Your task to perform on an android device: change your default location settings in chrome Image 0: 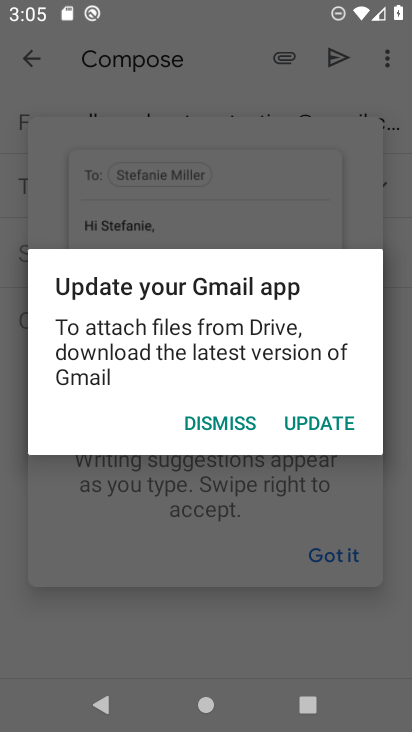
Step 0: press back button
Your task to perform on an android device: change your default location settings in chrome Image 1: 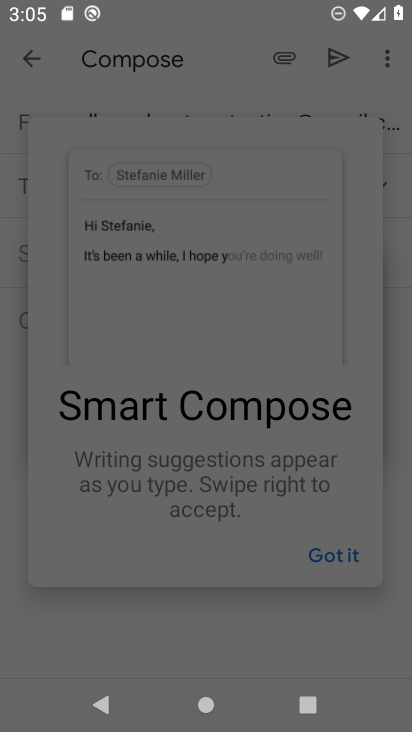
Step 1: click (211, 712)
Your task to perform on an android device: change your default location settings in chrome Image 2: 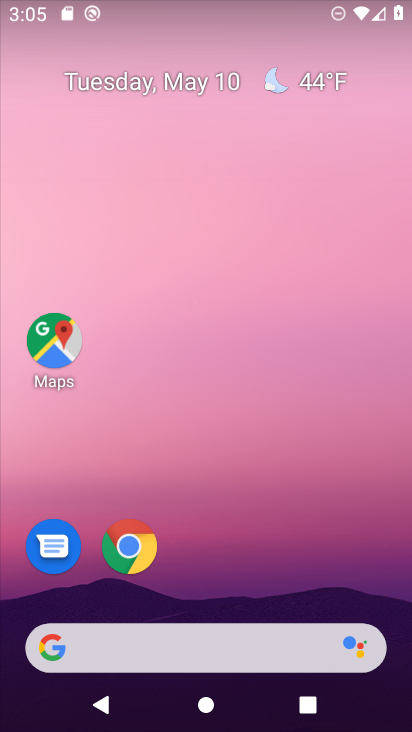
Step 2: drag from (195, 729) to (231, 98)
Your task to perform on an android device: change your default location settings in chrome Image 3: 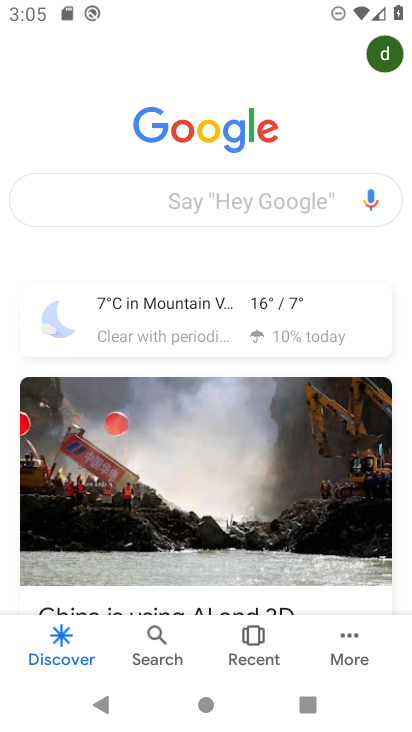
Step 3: press home button
Your task to perform on an android device: change your default location settings in chrome Image 4: 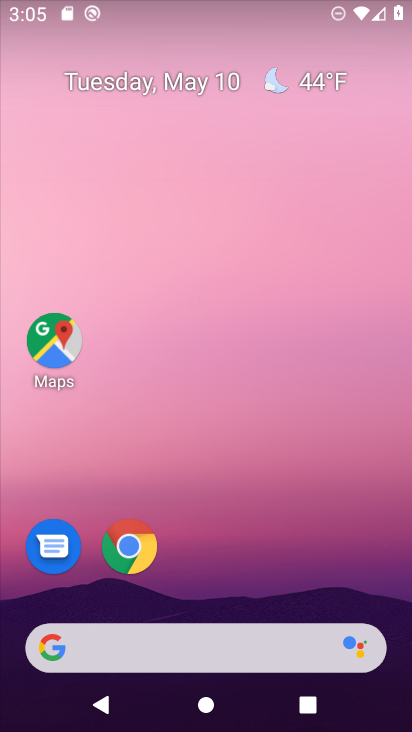
Step 4: drag from (230, 662) to (127, 35)
Your task to perform on an android device: change your default location settings in chrome Image 5: 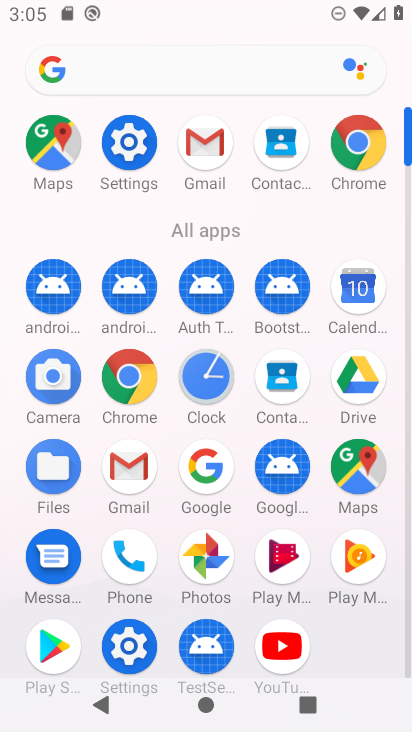
Step 5: click (113, 387)
Your task to perform on an android device: change your default location settings in chrome Image 6: 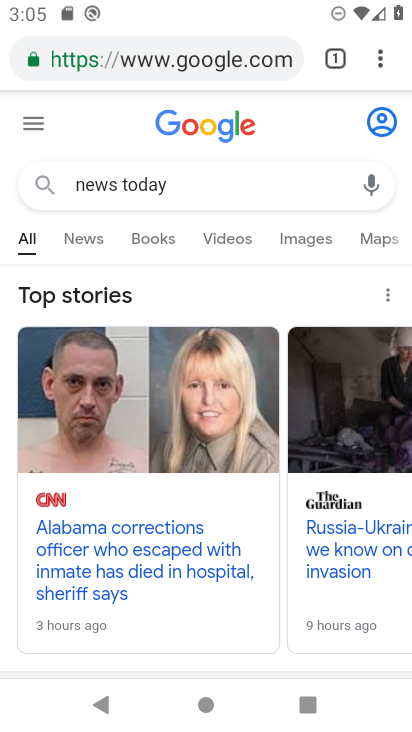
Step 6: drag from (381, 45) to (291, 372)
Your task to perform on an android device: change your default location settings in chrome Image 7: 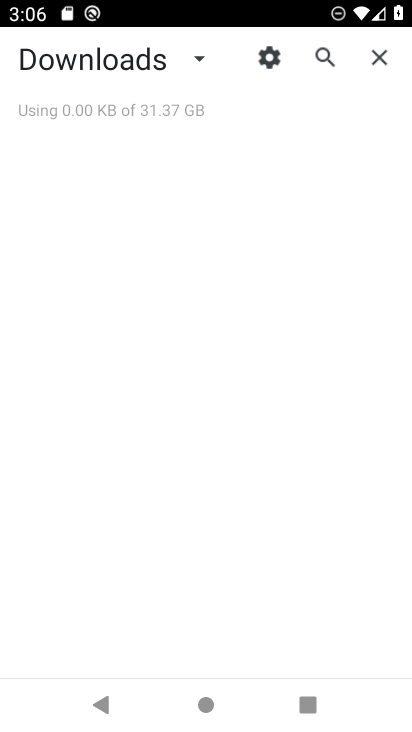
Step 7: press back button
Your task to perform on an android device: change your default location settings in chrome Image 8: 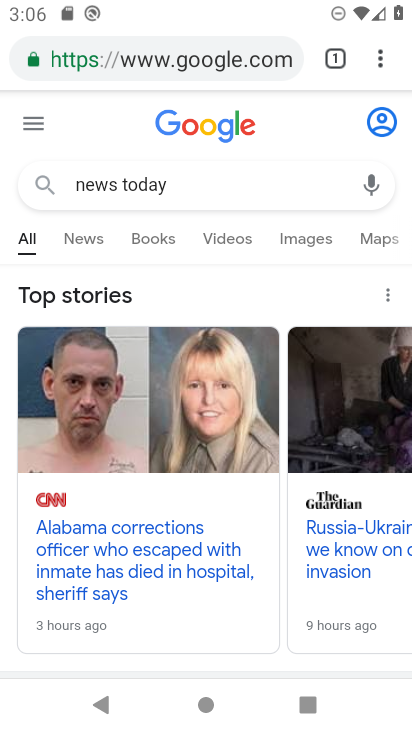
Step 8: click (379, 56)
Your task to perform on an android device: change your default location settings in chrome Image 9: 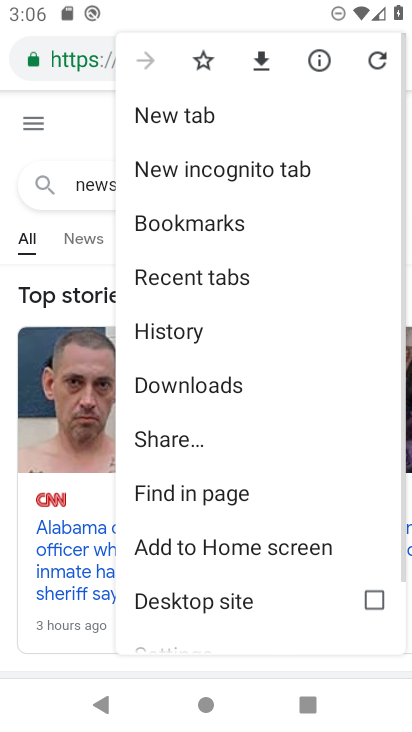
Step 9: drag from (325, 626) to (253, 236)
Your task to perform on an android device: change your default location settings in chrome Image 10: 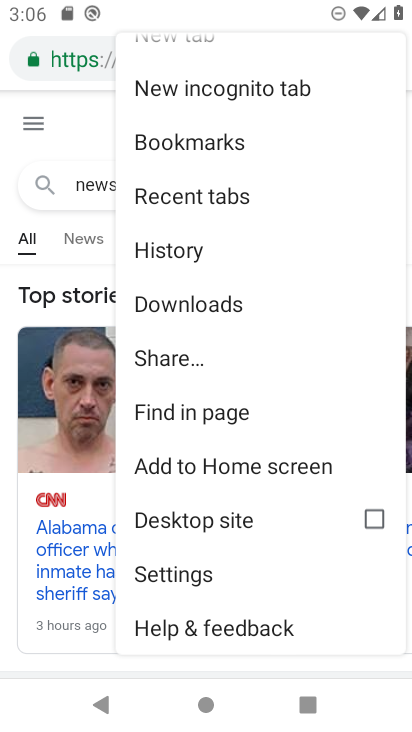
Step 10: click (173, 579)
Your task to perform on an android device: change your default location settings in chrome Image 11: 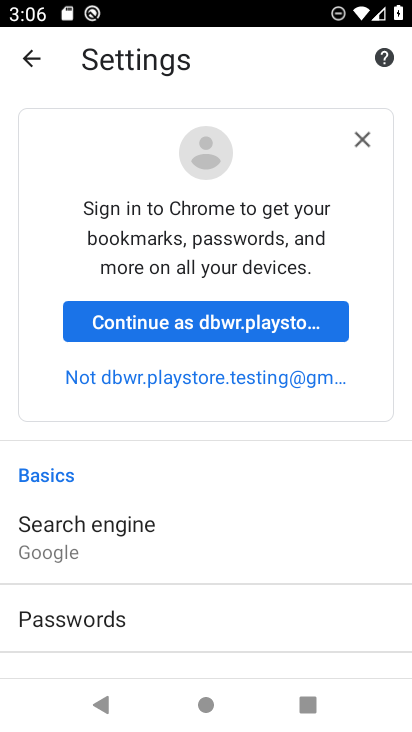
Step 11: drag from (237, 663) to (234, 330)
Your task to perform on an android device: change your default location settings in chrome Image 12: 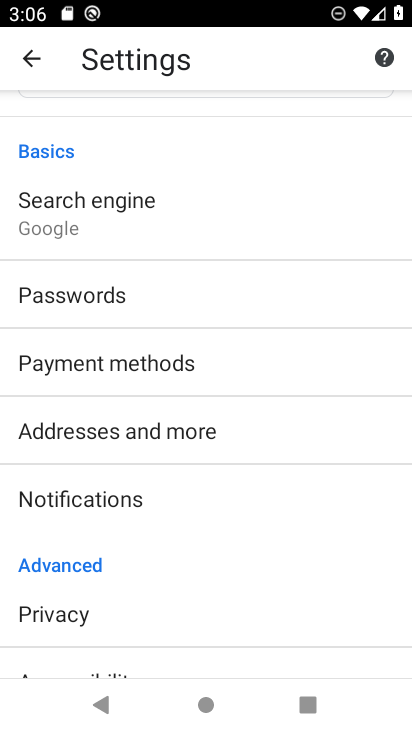
Step 12: drag from (206, 659) to (157, 206)
Your task to perform on an android device: change your default location settings in chrome Image 13: 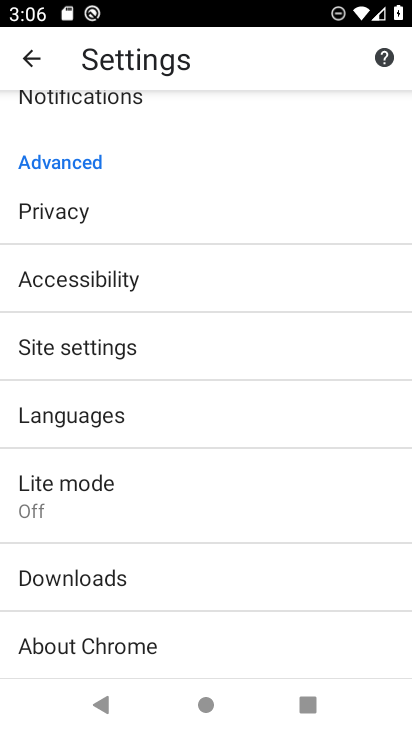
Step 13: click (168, 366)
Your task to perform on an android device: change your default location settings in chrome Image 14: 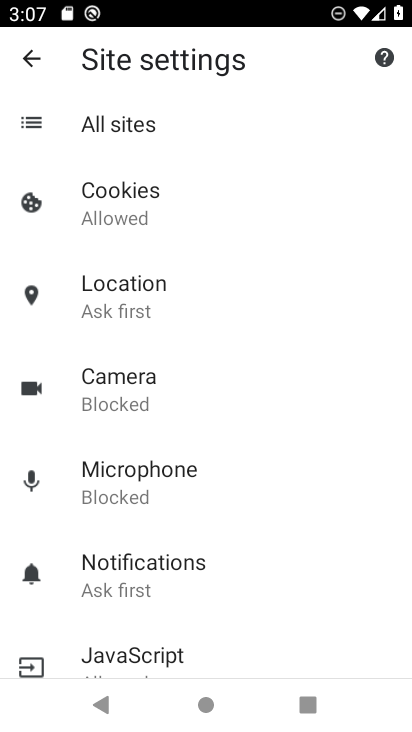
Step 14: click (140, 299)
Your task to perform on an android device: change your default location settings in chrome Image 15: 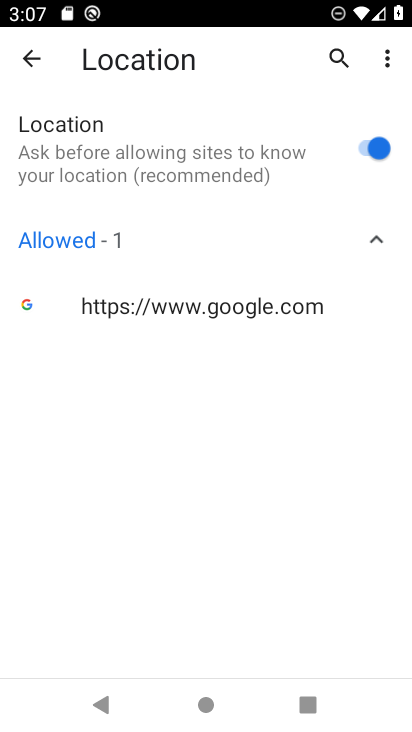
Step 15: task complete